Your task to perform on an android device: toggle notification dots Image 0: 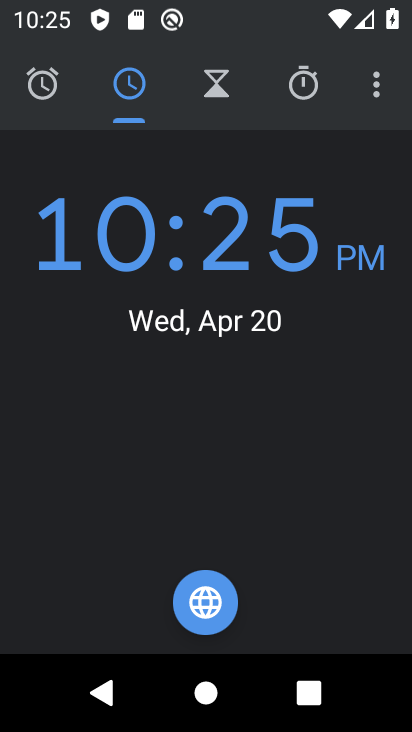
Step 0: press home button
Your task to perform on an android device: toggle notification dots Image 1: 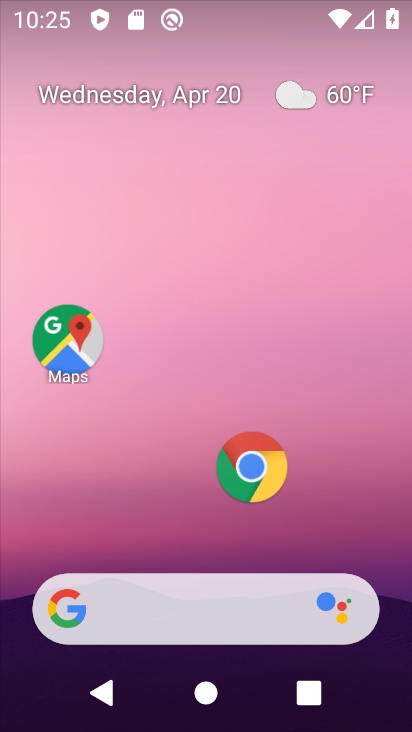
Step 1: drag from (329, 535) to (326, 160)
Your task to perform on an android device: toggle notification dots Image 2: 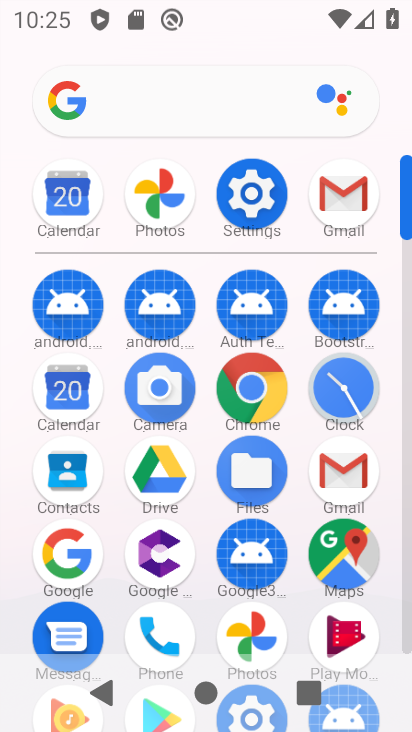
Step 2: click (253, 208)
Your task to perform on an android device: toggle notification dots Image 3: 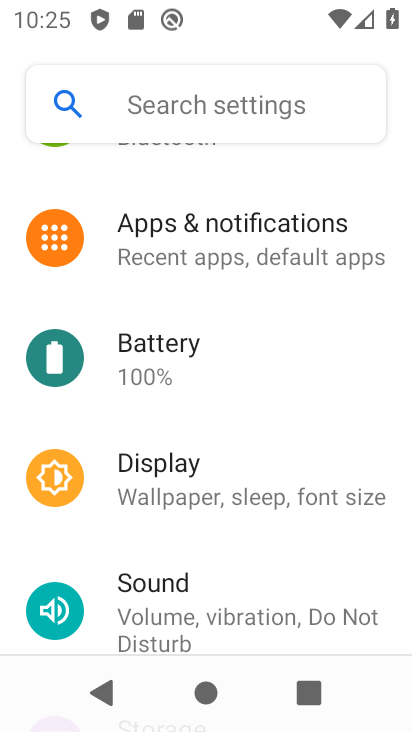
Step 3: click (230, 241)
Your task to perform on an android device: toggle notification dots Image 4: 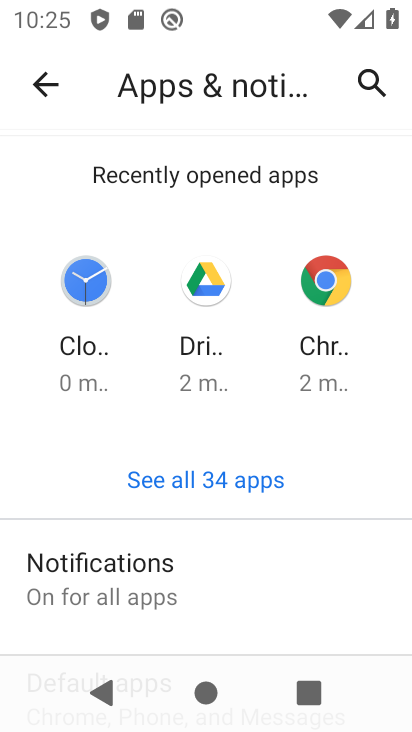
Step 4: drag from (153, 558) to (191, 425)
Your task to perform on an android device: toggle notification dots Image 5: 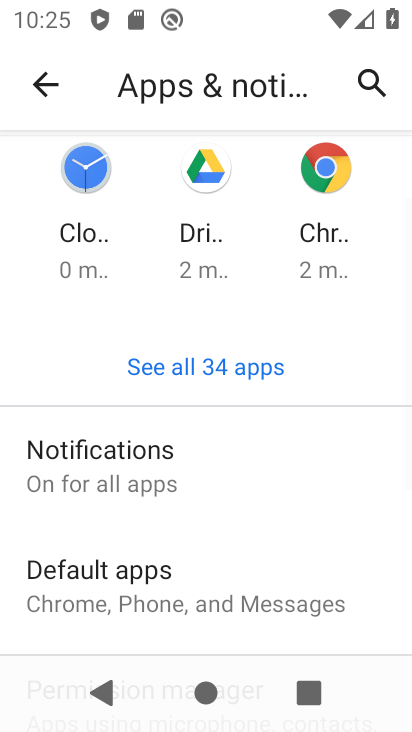
Step 5: click (166, 475)
Your task to perform on an android device: toggle notification dots Image 6: 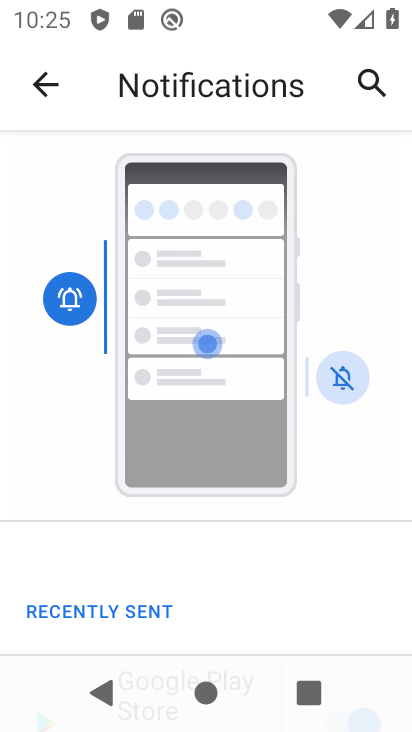
Step 6: drag from (163, 574) to (178, 426)
Your task to perform on an android device: toggle notification dots Image 7: 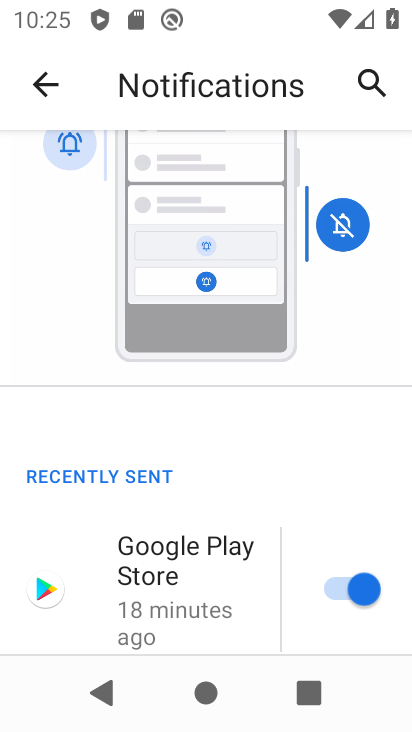
Step 7: drag from (163, 534) to (180, 402)
Your task to perform on an android device: toggle notification dots Image 8: 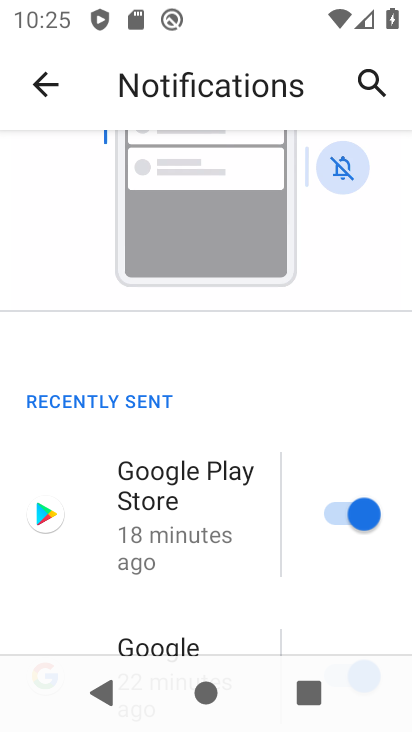
Step 8: drag from (150, 562) to (172, 394)
Your task to perform on an android device: toggle notification dots Image 9: 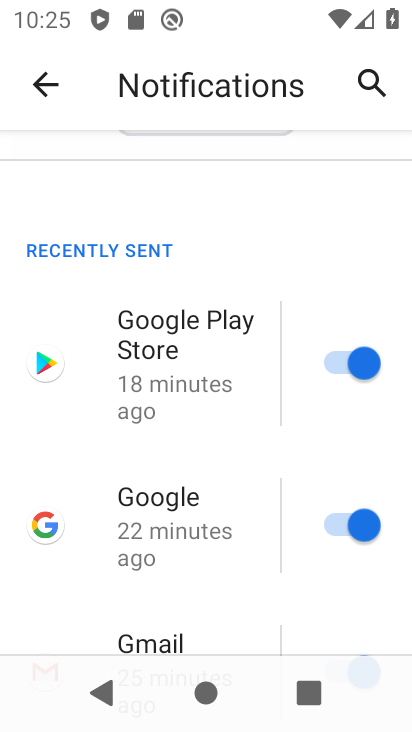
Step 9: drag from (158, 550) to (192, 383)
Your task to perform on an android device: toggle notification dots Image 10: 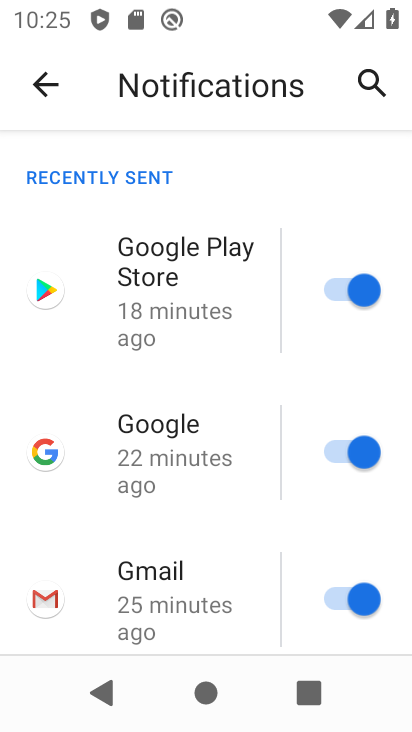
Step 10: drag from (193, 519) to (203, 339)
Your task to perform on an android device: toggle notification dots Image 11: 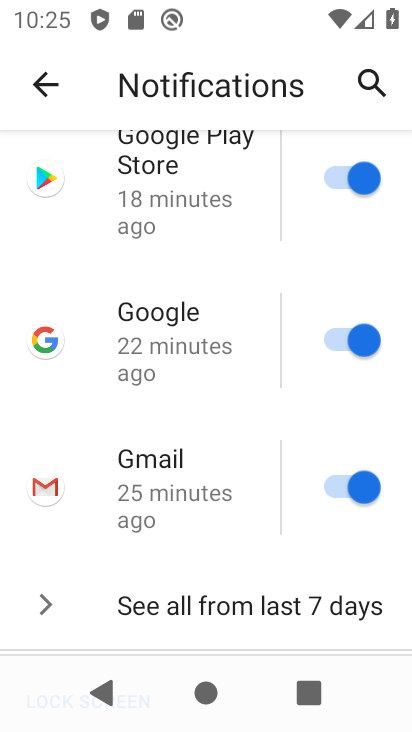
Step 11: drag from (225, 474) to (235, 300)
Your task to perform on an android device: toggle notification dots Image 12: 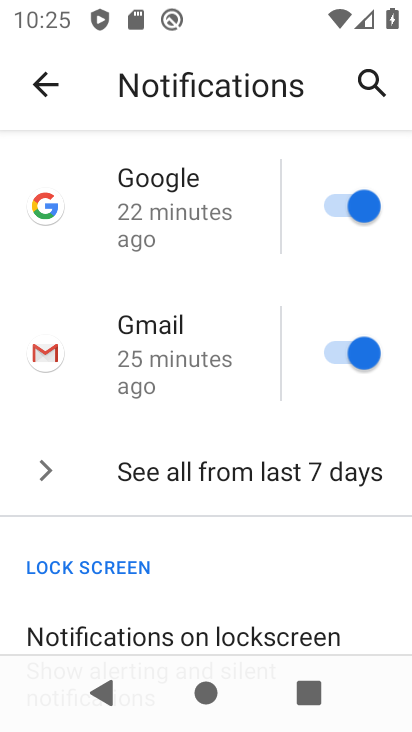
Step 12: drag from (156, 488) to (173, 368)
Your task to perform on an android device: toggle notification dots Image 13: 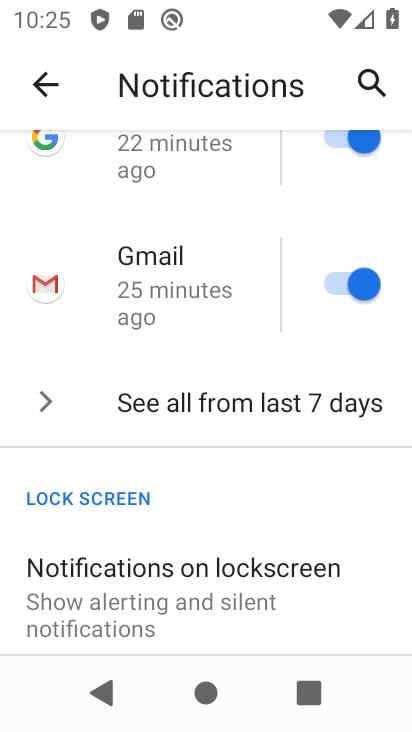
Step 13: drag from (187, 558) to (202, 402)
Your task to perform on an android device: toggle notification dots Image 14: 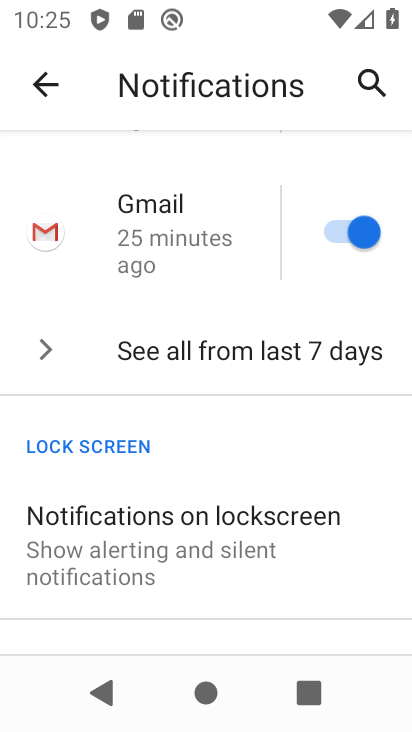
Step 14: drag from (200, 526) to (213, 386)
Your task to perform on an android device: toggle notification dots Image 15: 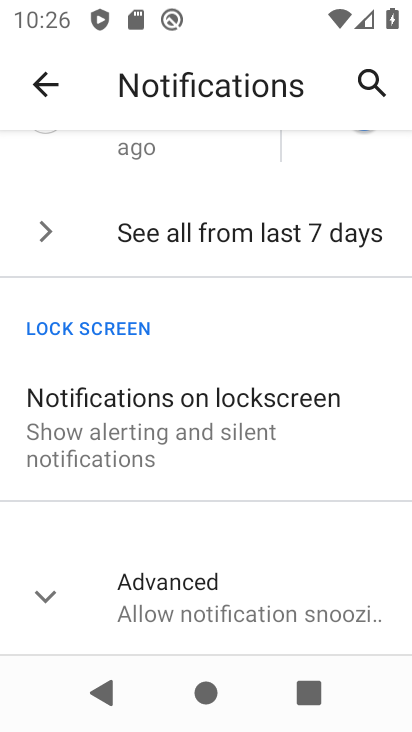
Step 15: click (140, 587)
Your task to perform on an android device: toggle notification dots Image 16: 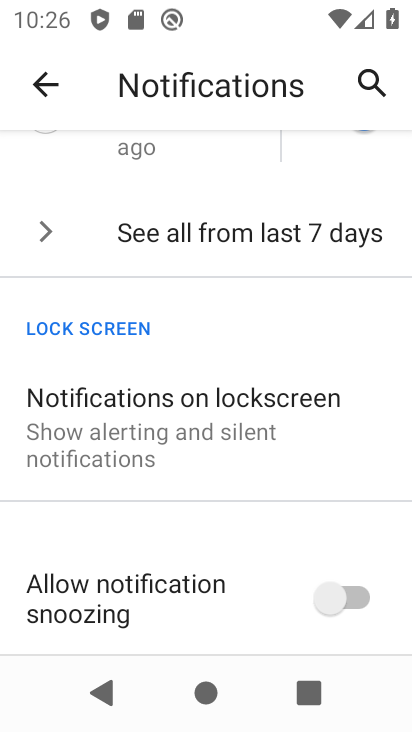
Step 16: drag from (131, 616) to (151, 490)
Your task to perform on an android device: toggle notification dots Image 17: 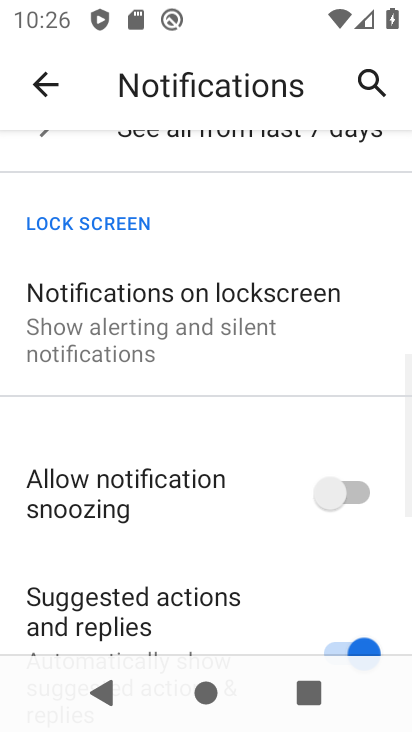
Step 17: drag from (97, 635) to (160, 467)
Your task to perform on an android device: toggle notification dots Image 18: 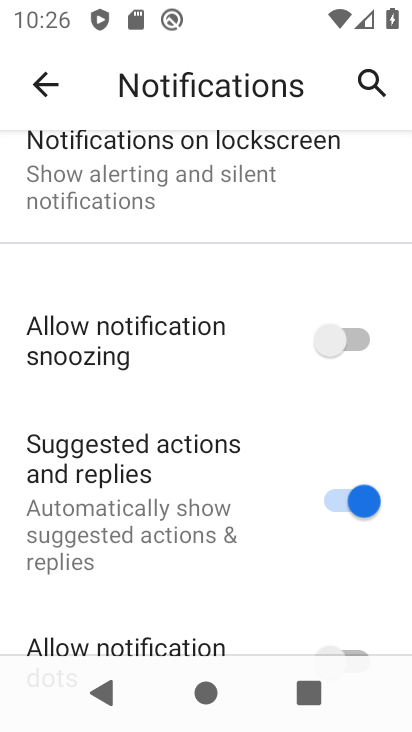
Step 18: drag from (178, 544) to (224, 447)
Your task to perform on an android device: toggle notification dots Image 19: 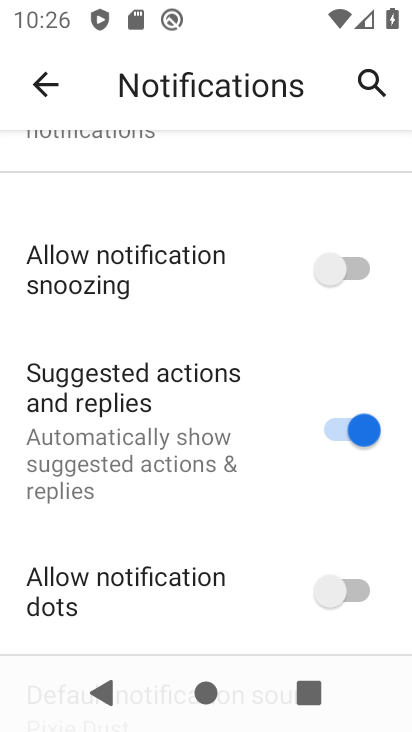
Step 19: click (318, 596)
Your task to perform on an android device: toggle notification dots Image 20: 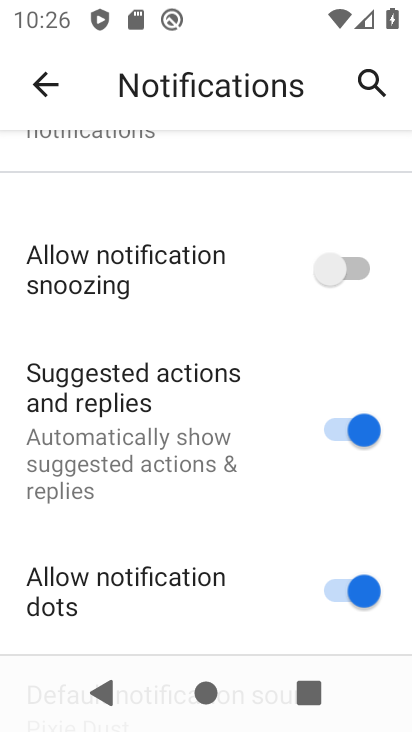
Step 20: task complete